Your task to perform on an android device: Open the map Image 0: 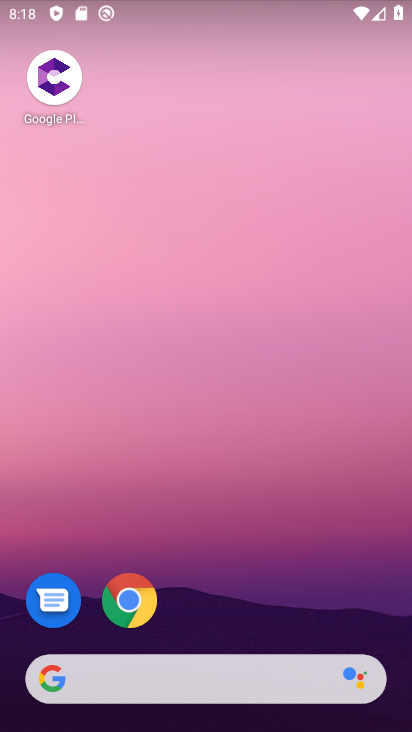
Step 0: drag from (215, 604) to (199, 234)
Your task to perform on an android device: Open the map Image 1: 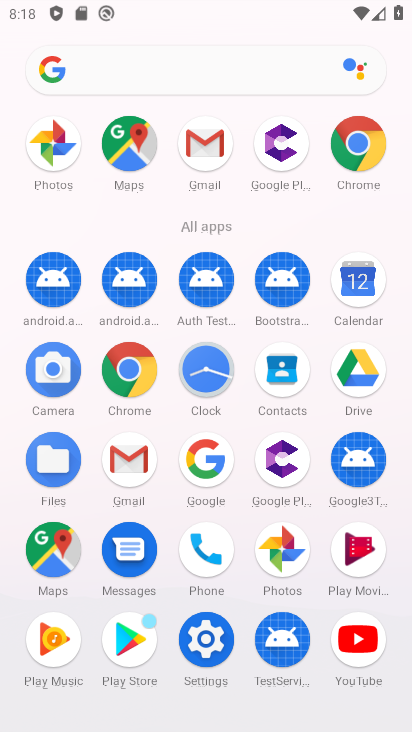
Step 1: click (128, 169)
Your task to perform on an android device: Open the map Image 2: 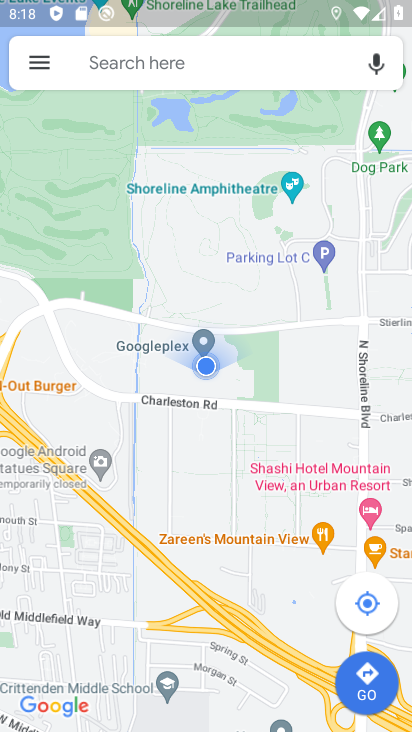
Step 2: task complete